Your task to perform on an android device: Search for Mexican restaurants on Maps Image 0: 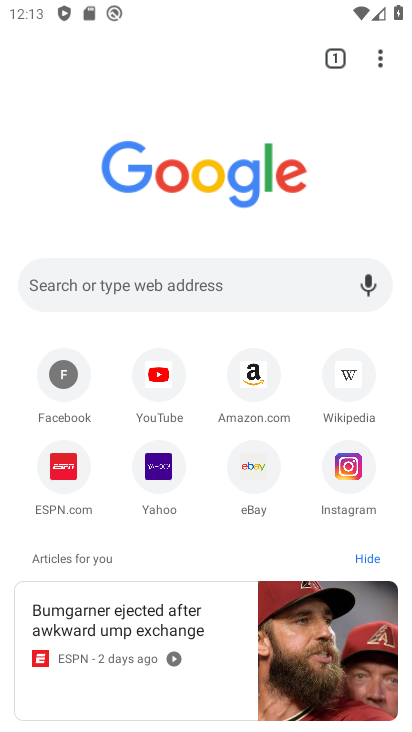
Step 0: press home button
Your task to perform on an android device: Search for Mexican restaurants on Maps Image 1: 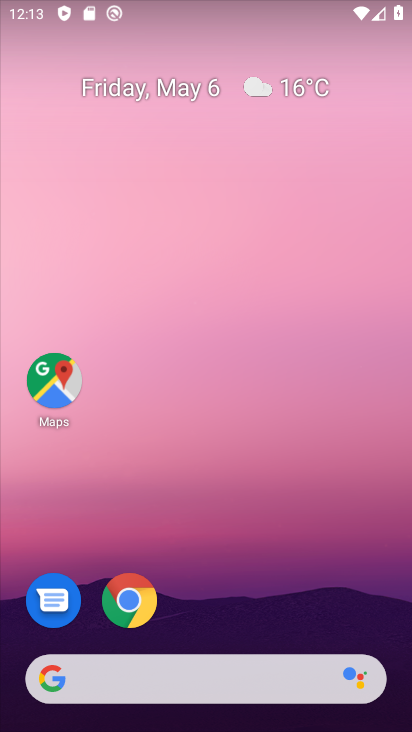
Step 1: click (39, 377)
Your task to perform on an android device: Search for Mexican restaurants on Maps Image 2: 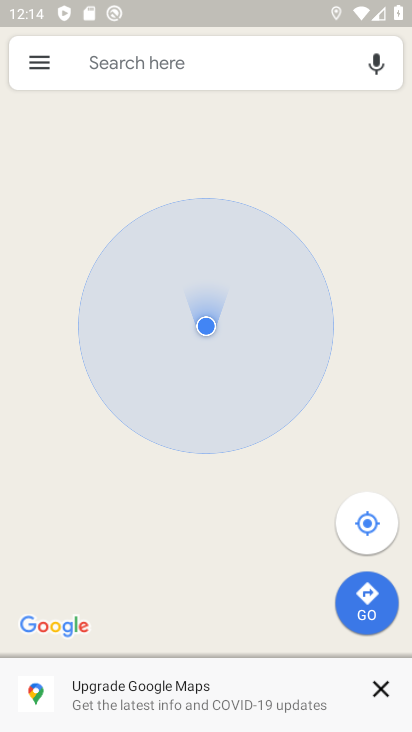
Step 2: click (167, 55)
Your task to perform on an android device: Search for Mexican restaurants on Maps Image 3: 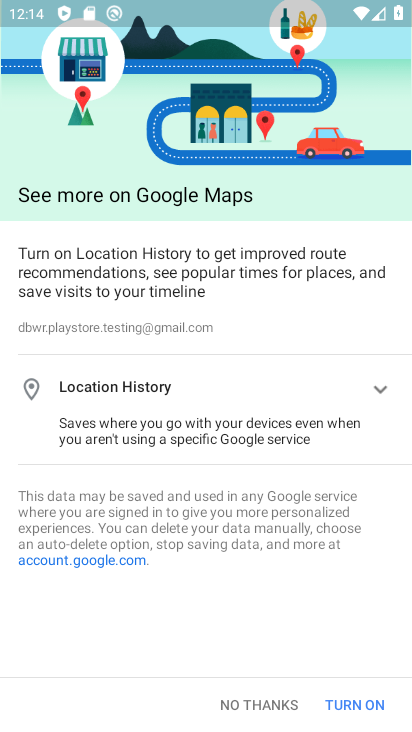
Step 3: click (370, 704)
Your task to perform on an android device: Search for Mexican restaurants on Maps Image 4: 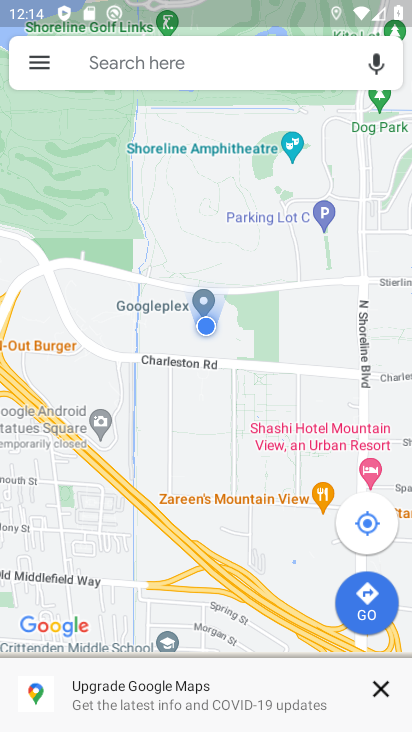
Step 4: click (168, 59)
Your task to perform on an android device: Search for Mexican restaurants on Maps Image 5: 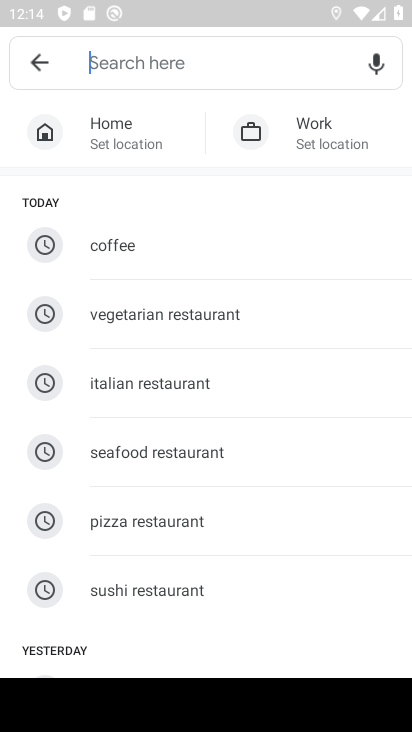
Step 5: type "maxic"
Your task to perform on an android device: Search for Mexican restaurants on Maps Image 6: 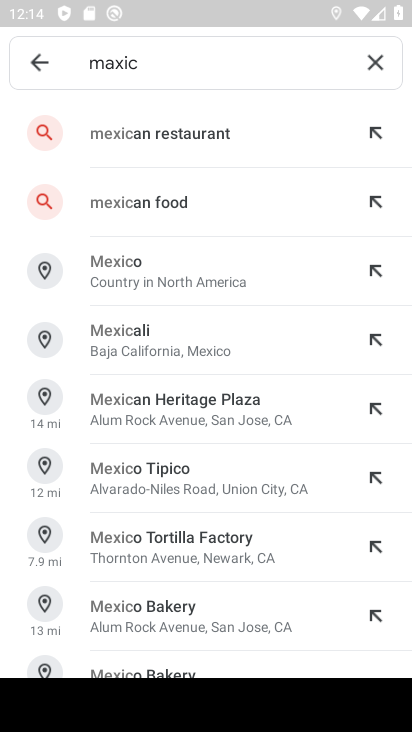
Step 6: click (188, 135)
Your task to perform on an android device: Search for Mexican restaurants on Maps Image 7: 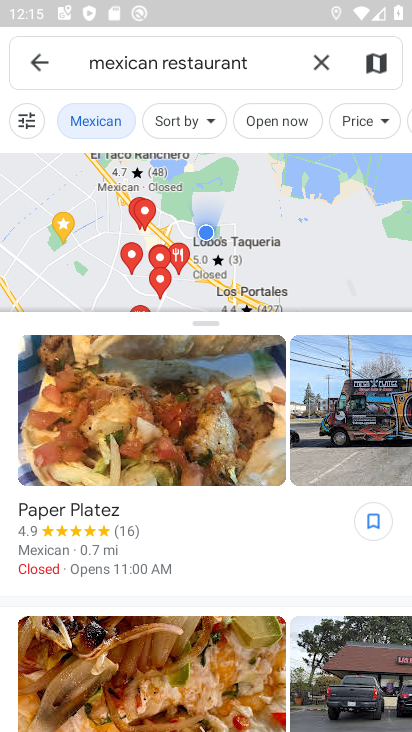
Step 7: task complete